Your task to perform on an android device: Clear all items from cart on amazon. Add razer blade to the cart on amazon, then select checkout. Image 0: 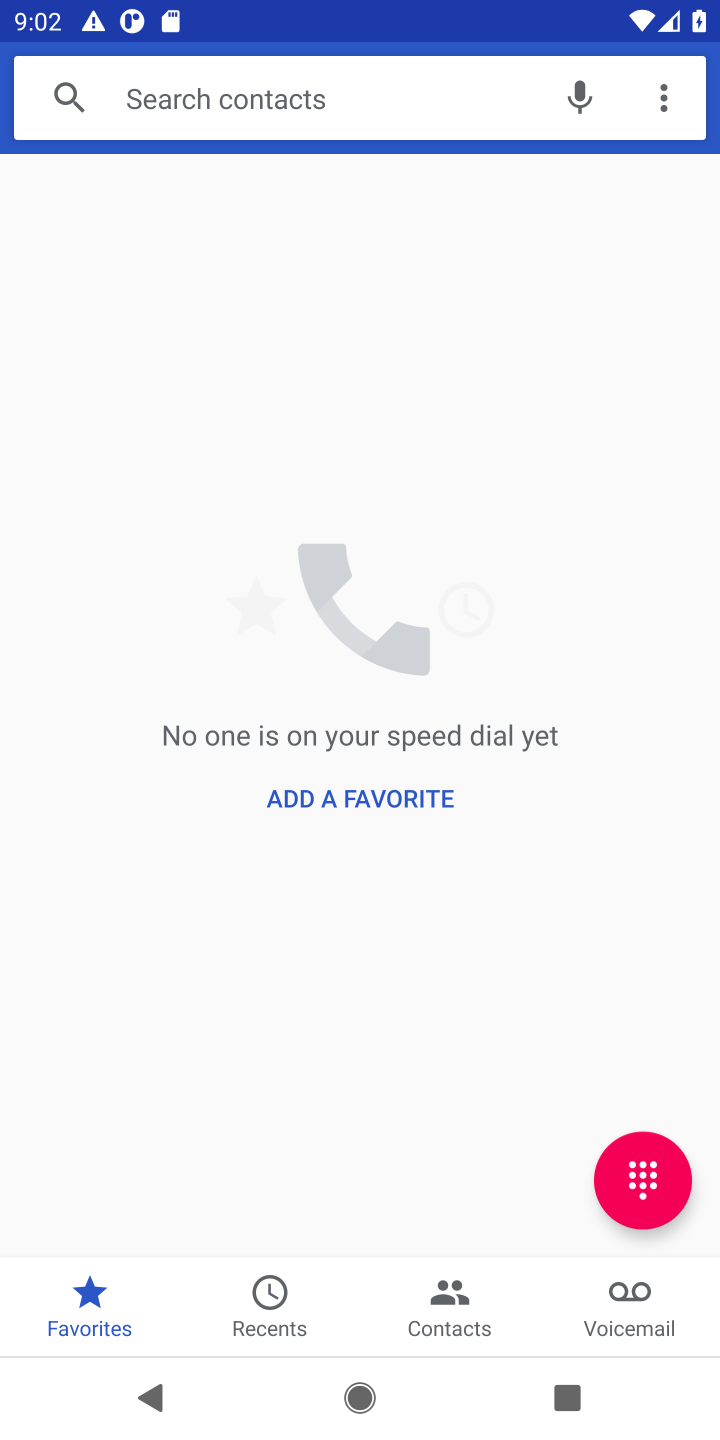
Step 0: press home button
Your task to perform on an android device: Clear all items from cart on amazon. Add razer blade to the cart on amazon, then select checkout. Image 1: 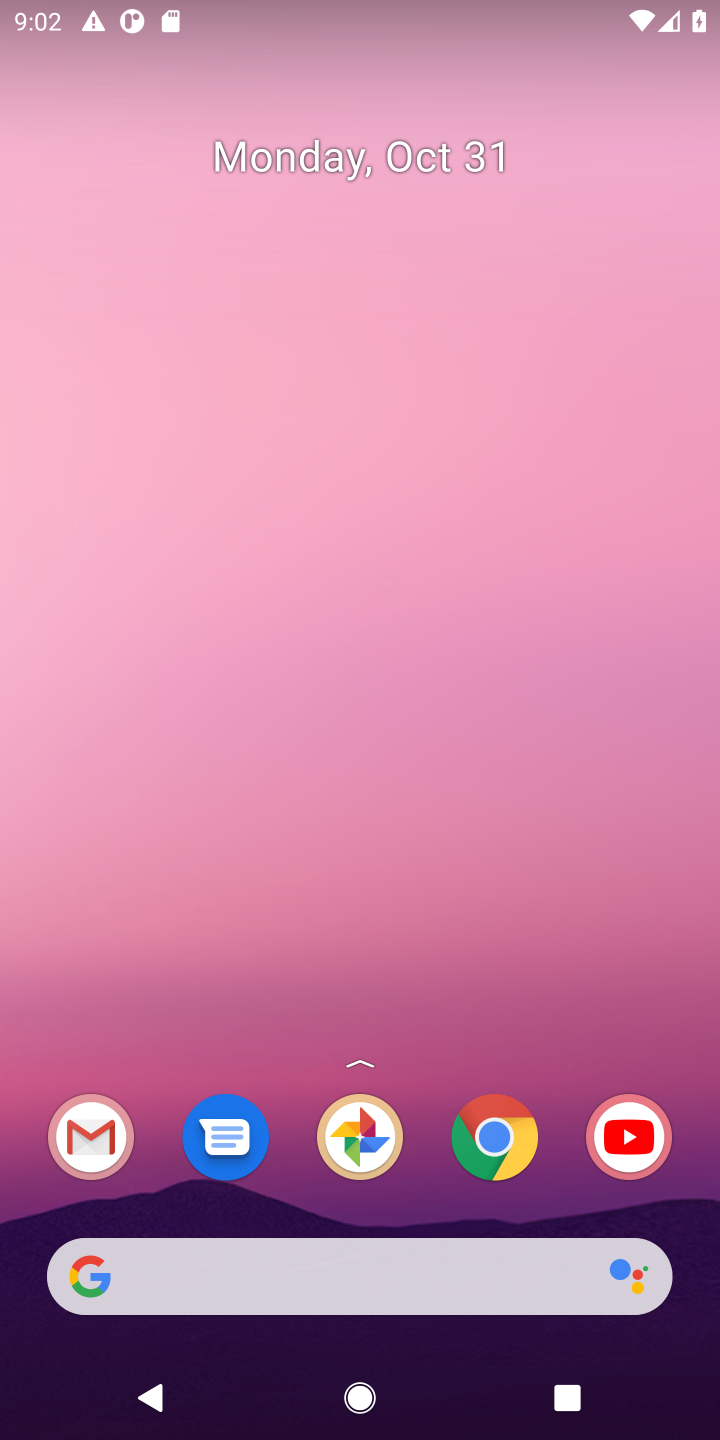
Step 1: click (480, 1166)
Your task to perform on an android device: Clear all items from cart on amazon. Add razer blade to the cart on amazon, then select checkout. Image 2: 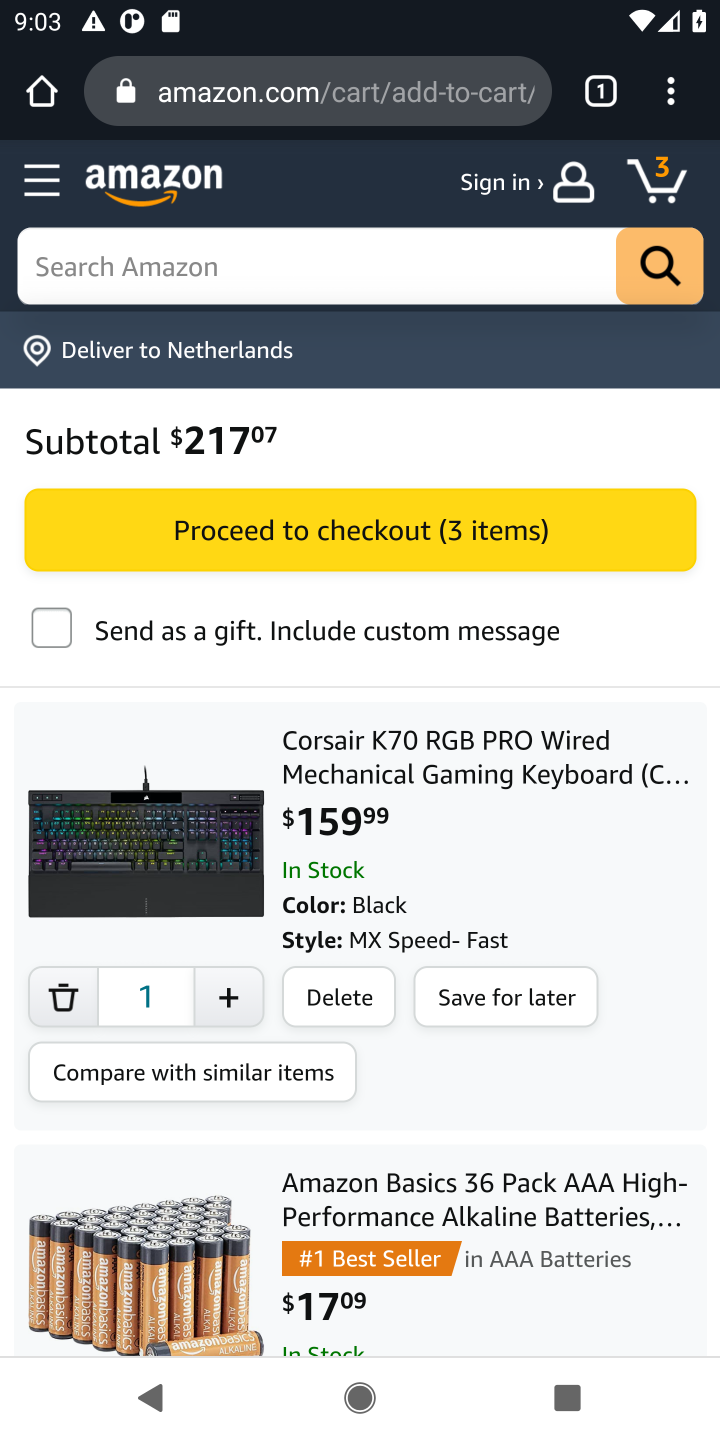
Step 2: click (665, 189)
Your task to perform on an android device: Clear all items from cart on amazon. Add razer blade to the cart on amazon, then select checkout. Image 3: 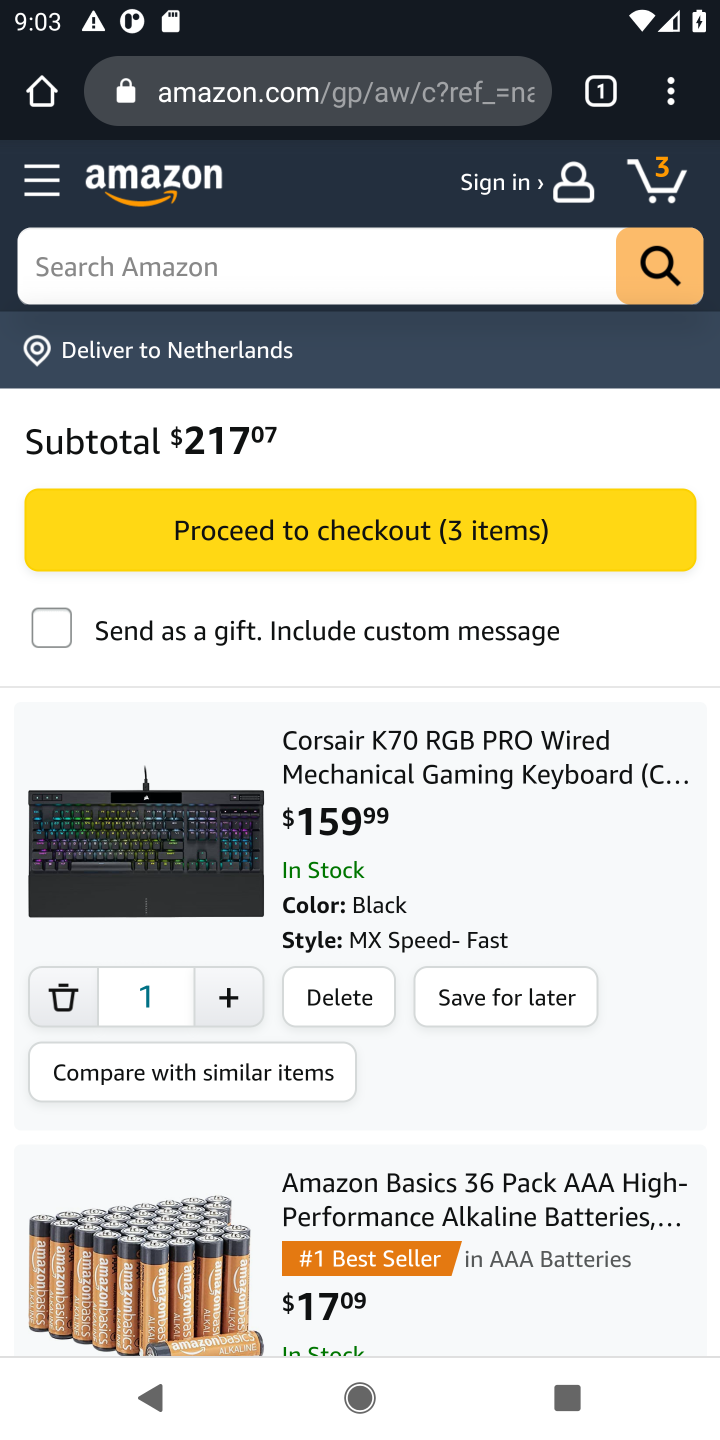
Step 3: click (665, 181)
Your task to perform on an android device: Clear all items from cart on amazon. Add razer blade to the cart on amazon, then select checkout. Image 4: 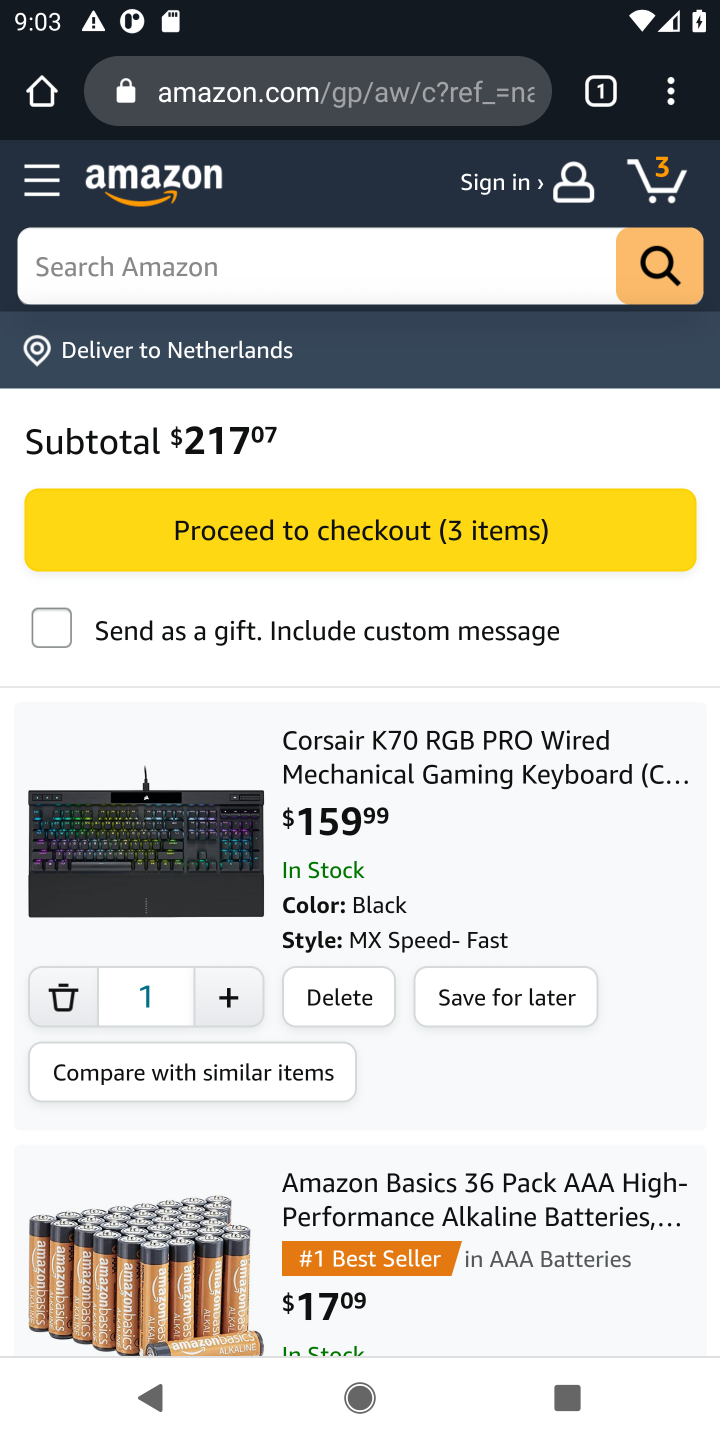
Step 4: click (336, 993)
Your task to perform on an android device: Clear all items from cart on amazon. Add razer blade to the cart on amazon, then select checkout. Image 5: 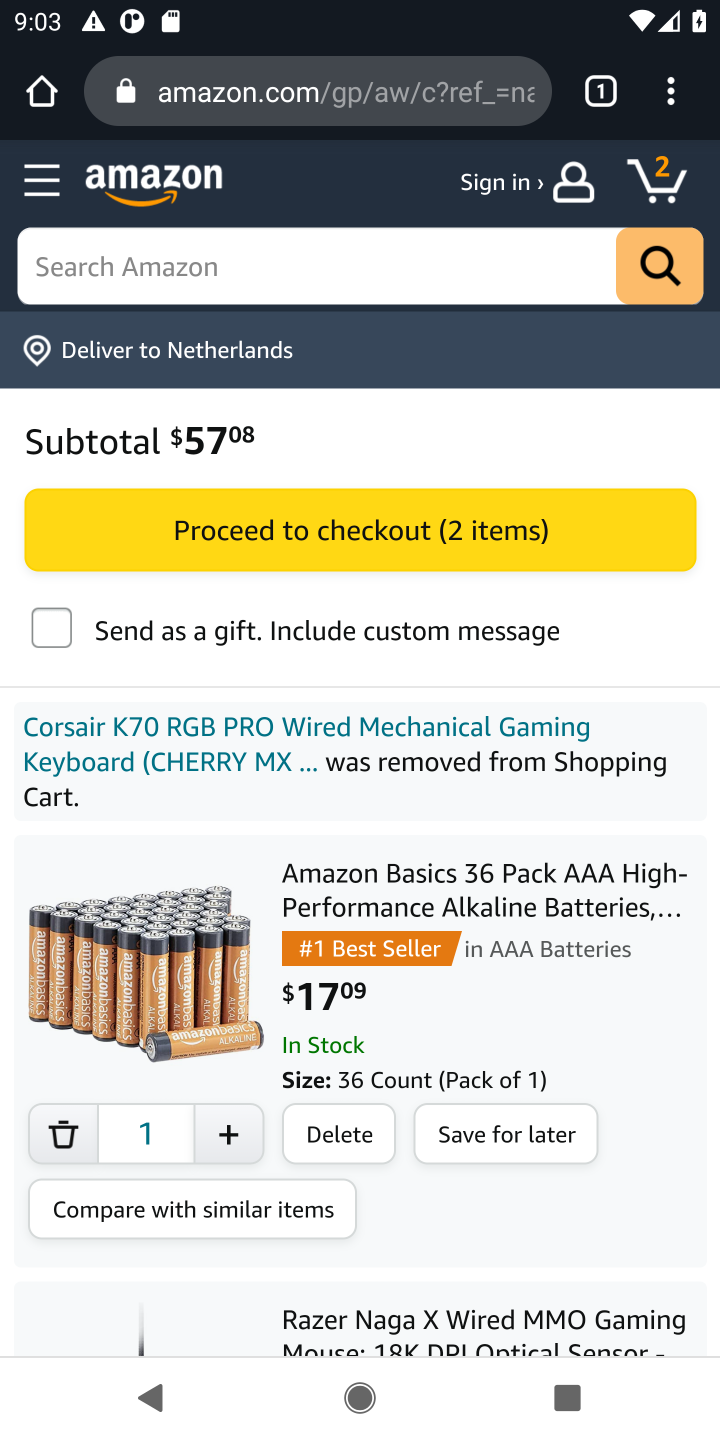
Step 5: click (316, 1129)
Your task to perform on an android device: Clear all items from cart on amazon. Add razer blade to the cart on amazon, then select checkout. Image 6: 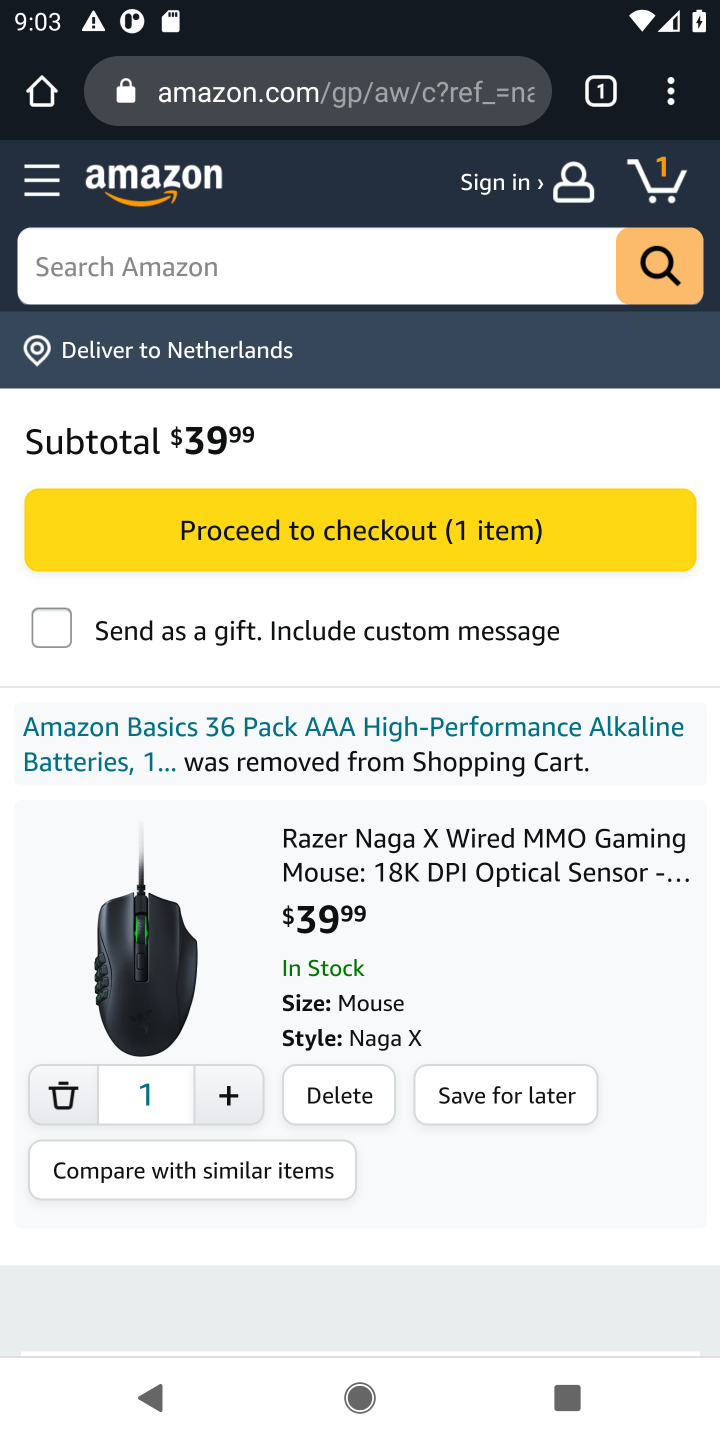
Step 6: click (327, 1104)
Your task to perform on an android device: Clear all items from cart on amazon. Add razer blade to the cart on amazon, then select checkout. Image 7: 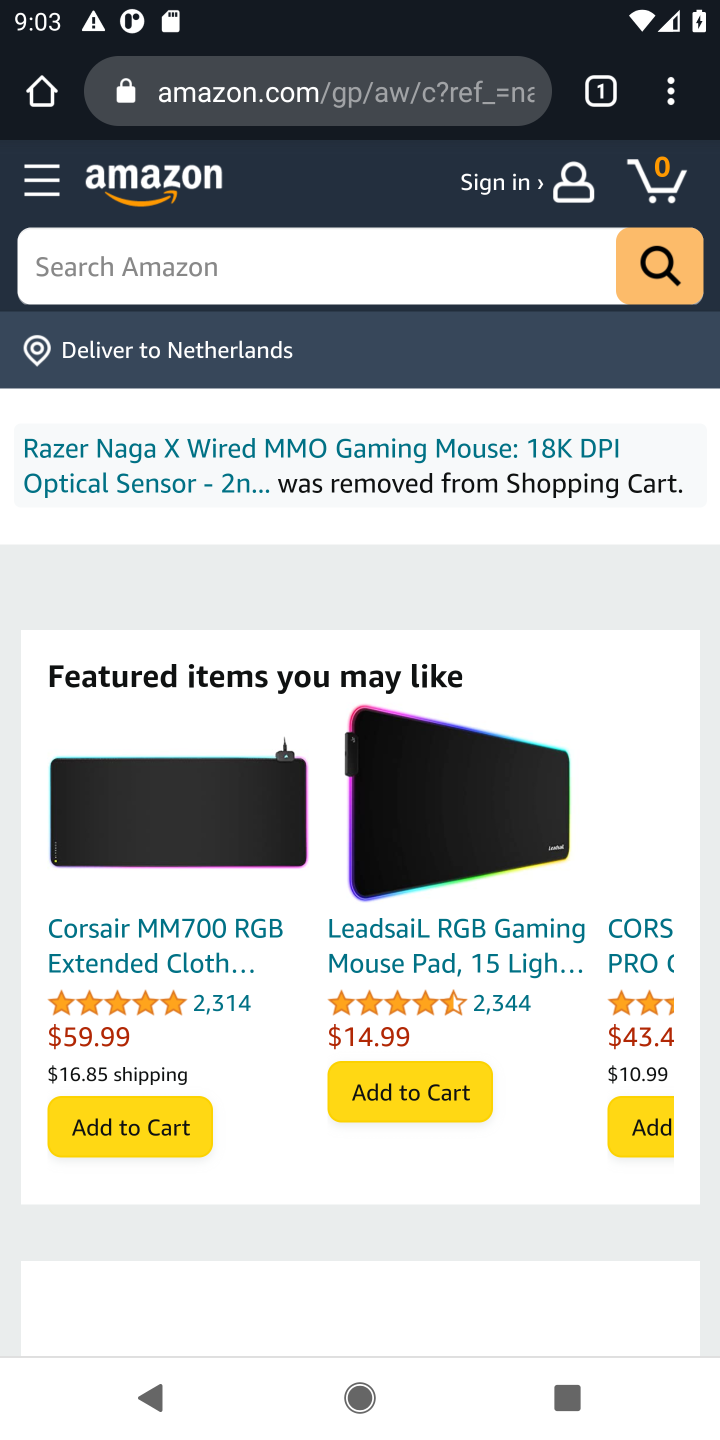
Step 7: click (369, 268)
Your task to perform on an android device: Clear all items from cart on amazon. Add razer blade to the cart on amazon, then select checkout. Image 8: 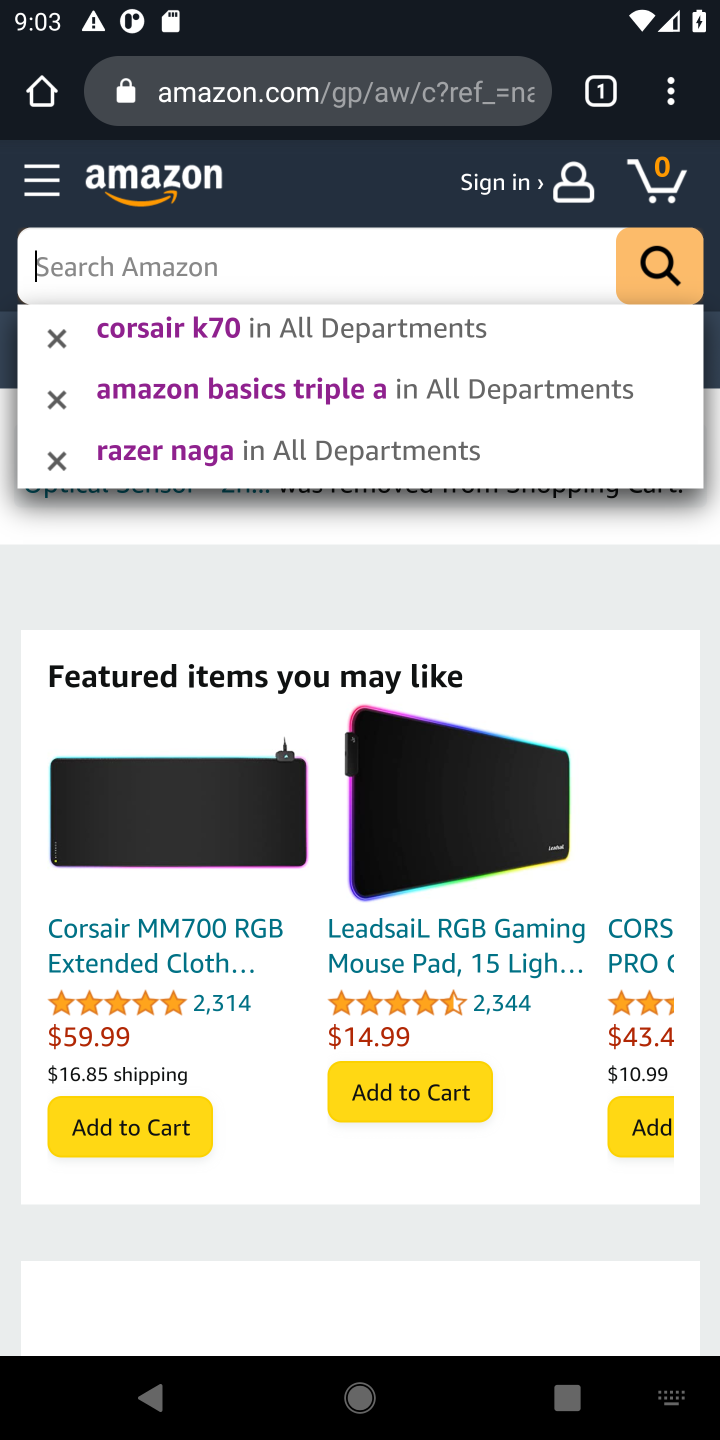
Step 8: type "razer blade"
Your task to perform on an android device: Clear all items from cart on amazon. Add razer blade to the cart on amazon, then select checkout. Image 9: 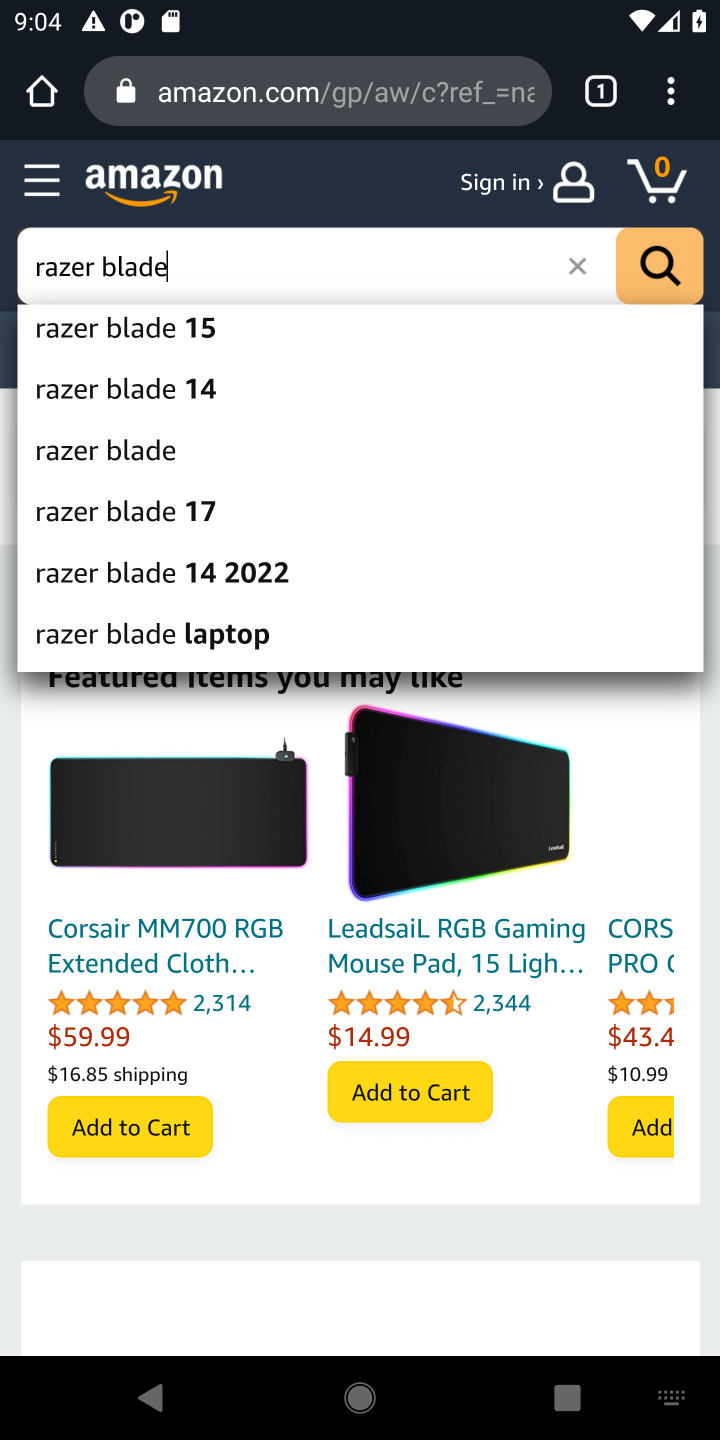
Step 9: click (160, 451)
Your task to perform on an android device: Clear all items from cart on amazon. Add razer blade to the cart on amazon, then select checkout. Image 10: 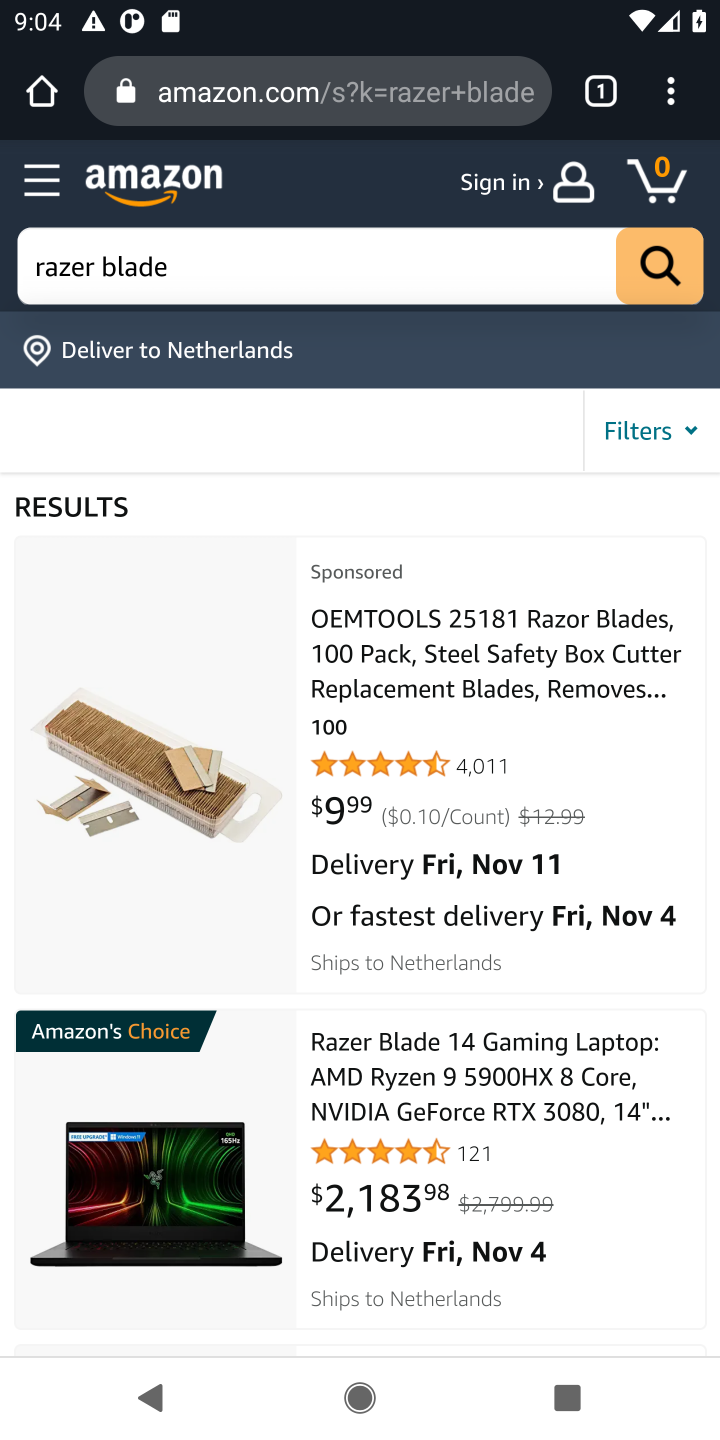
Step 10: click (280, 730)
Your task to perform on an android device: Clear all items from cart on amazon. Add razer blade to the cart on amazon, then select checkout. Image 11: 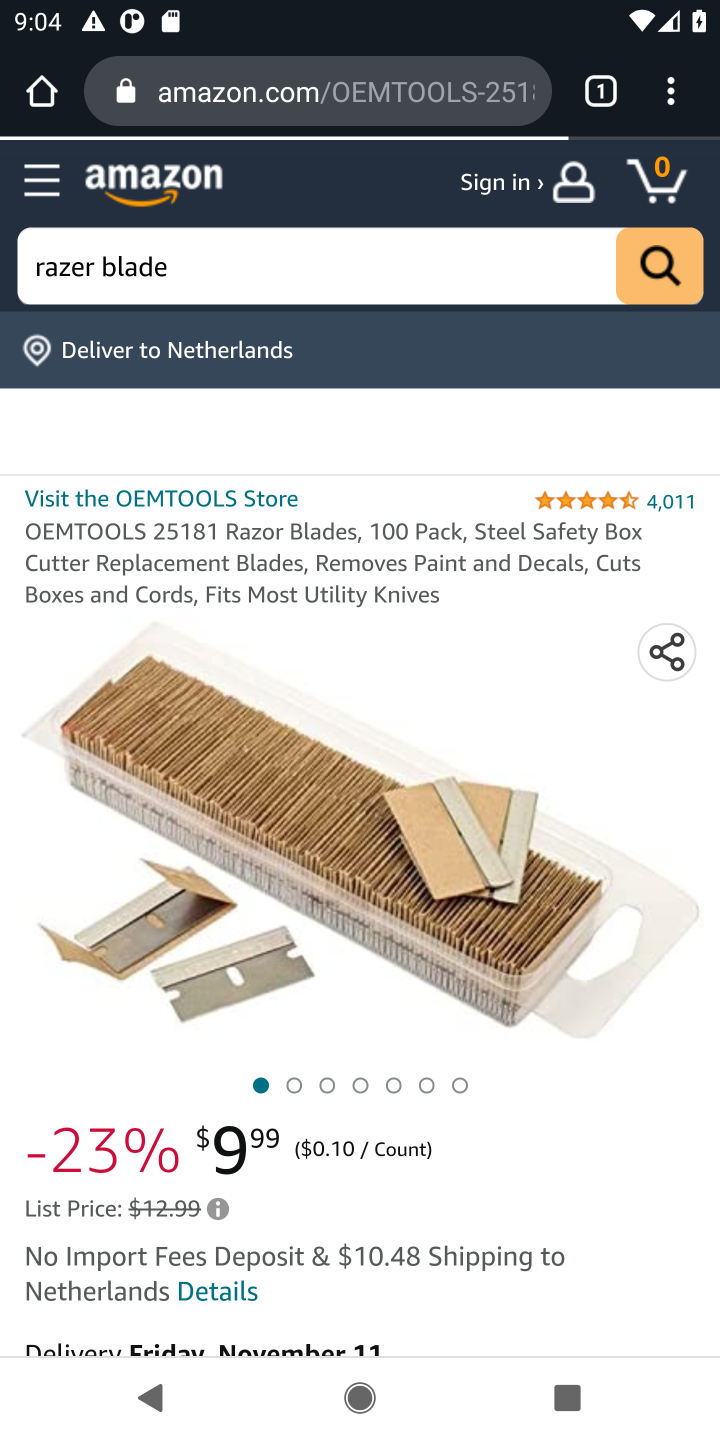
Step 11: drag from (425, 1118) to (435, 526)
Your task to perform on an android device: Clear all items from cart on amazon. Add razer blade to the cart on amazon, then select checkout. Image 12: 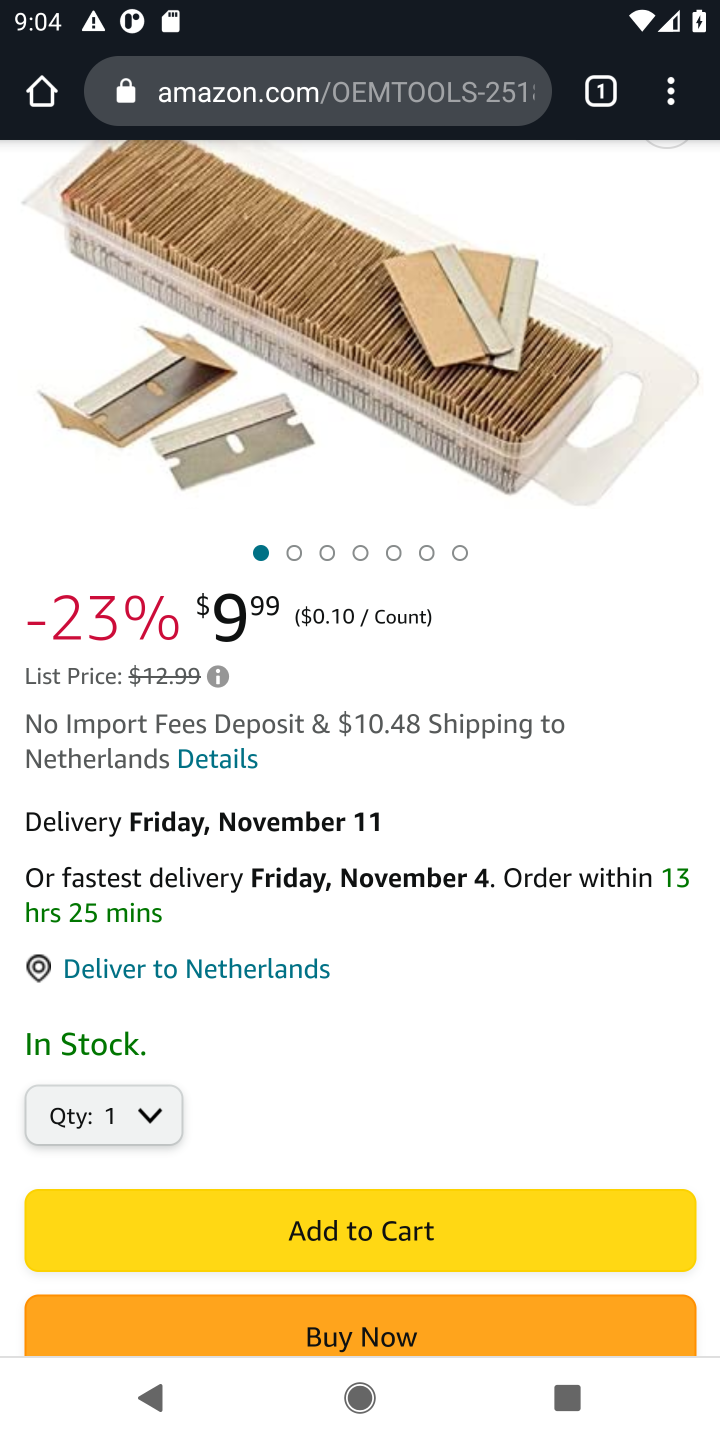
Step 12: click (363, 1220)
Your task to perform on an android device: Clear all items from cart on amazon. Add razer blade to the cart on amazon, then select checkout. Image 13: 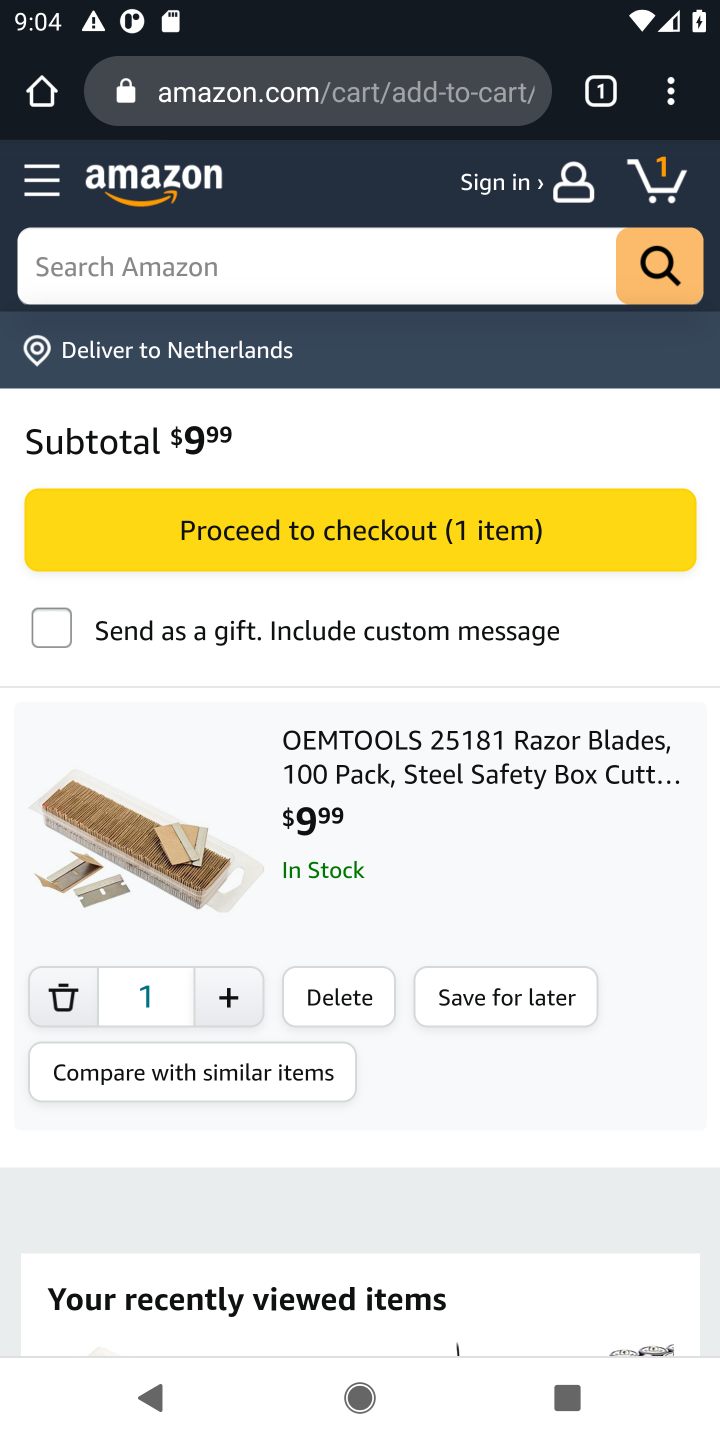
Step 13: click (326, 532)
Your task to perform on an android device: Clear all items from cart on amazon. Add razer blade to the cart on amazon, then select checkout. Image 14: 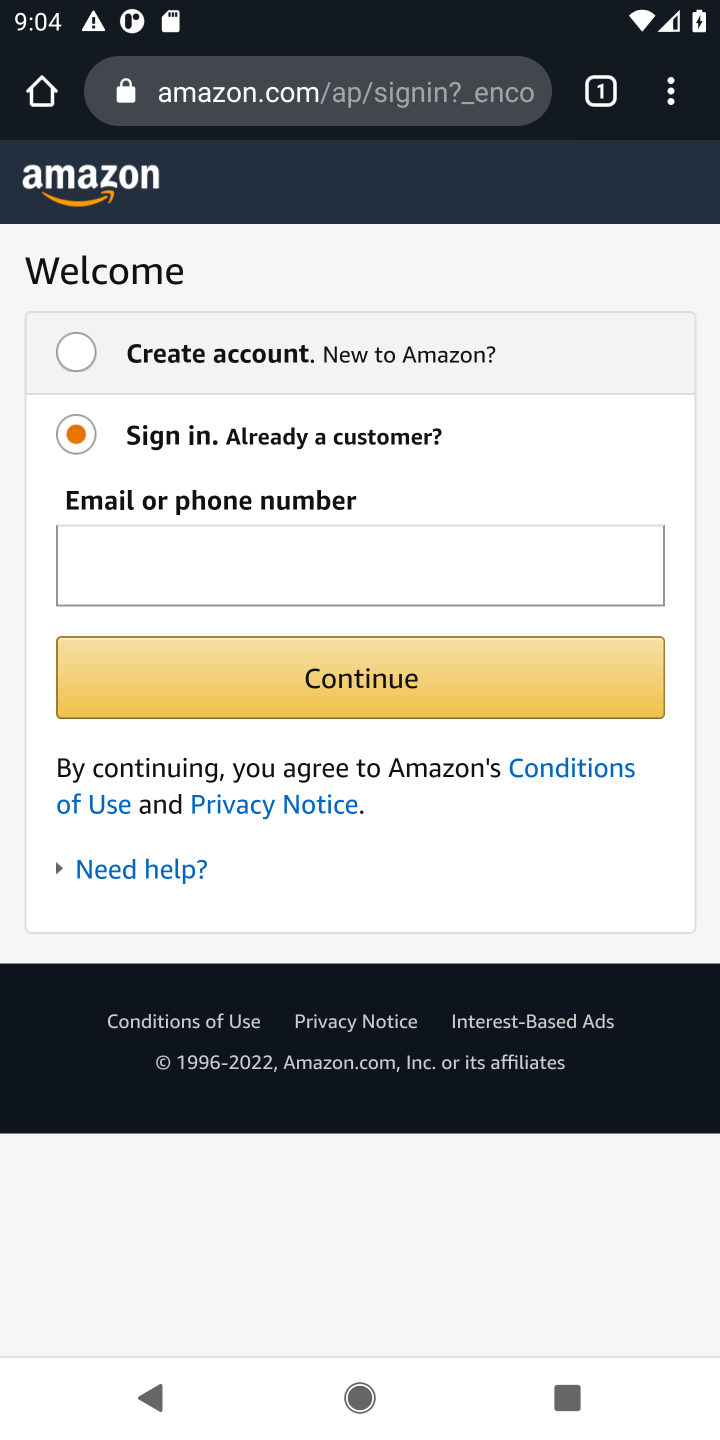
Step 14: task complete